Your task to perform on an android device: Clear the cart on amazon. Image 0: 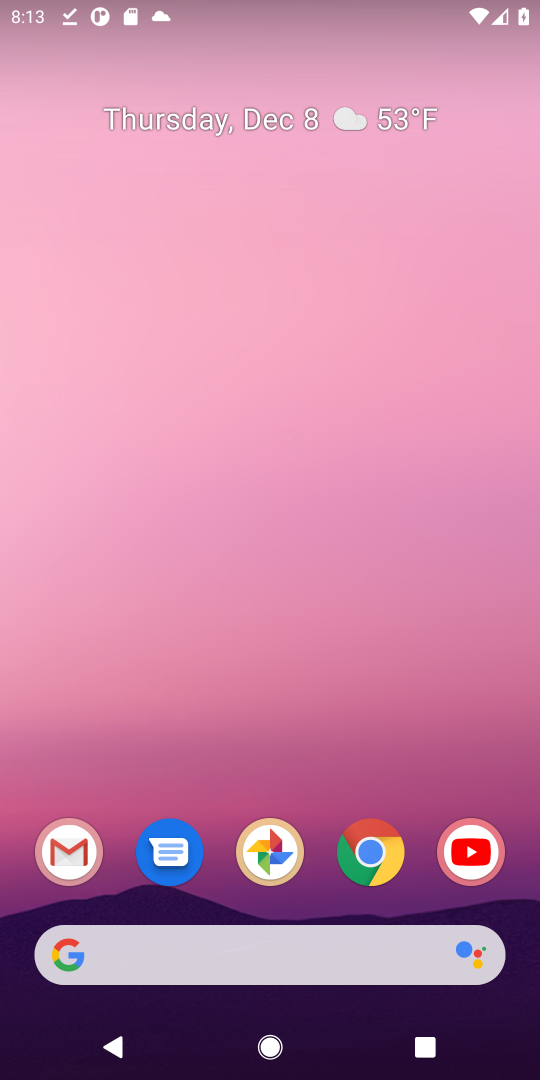
Step 0: click (213, 957)
Your task to perform on an android device: Clear the cart on amazon. Image 1: 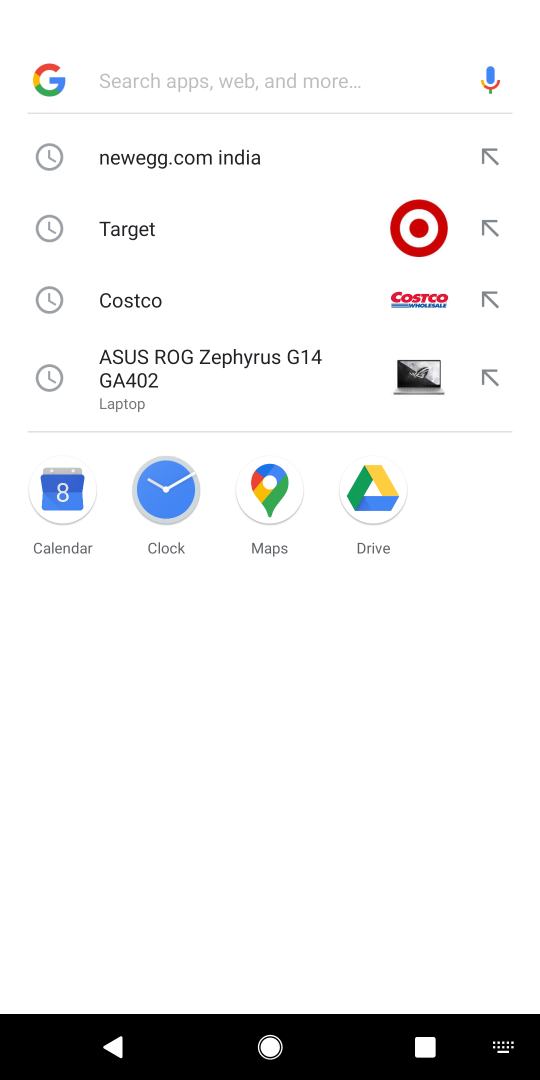
Step 1: type "amazon "
Your task to perform on an android device: Clear the cart on amazon. Image 2: 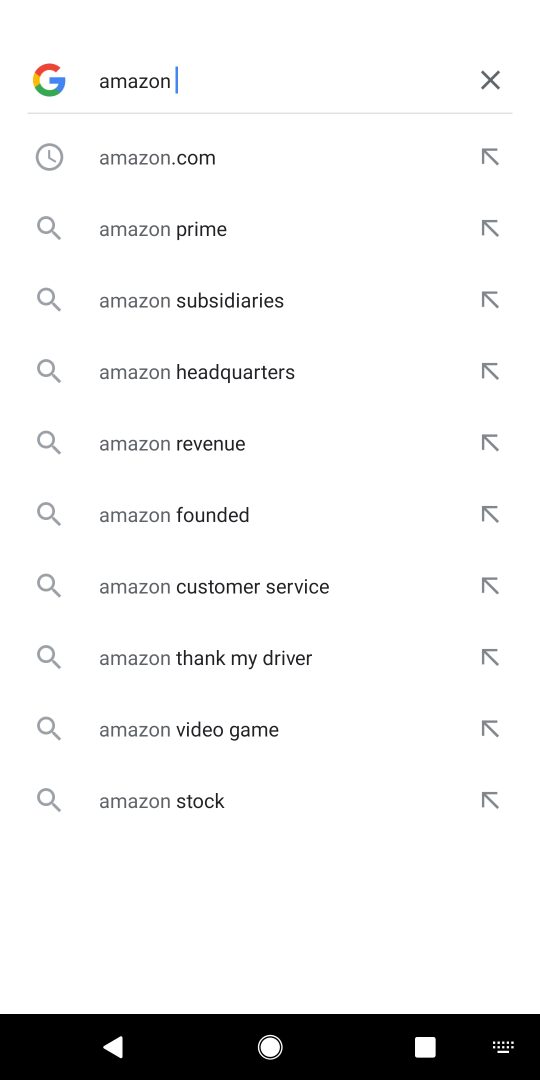
Step 2: click (146, 172)
Your task to perform on an android device: Clear the cart on amazon. Image 3: 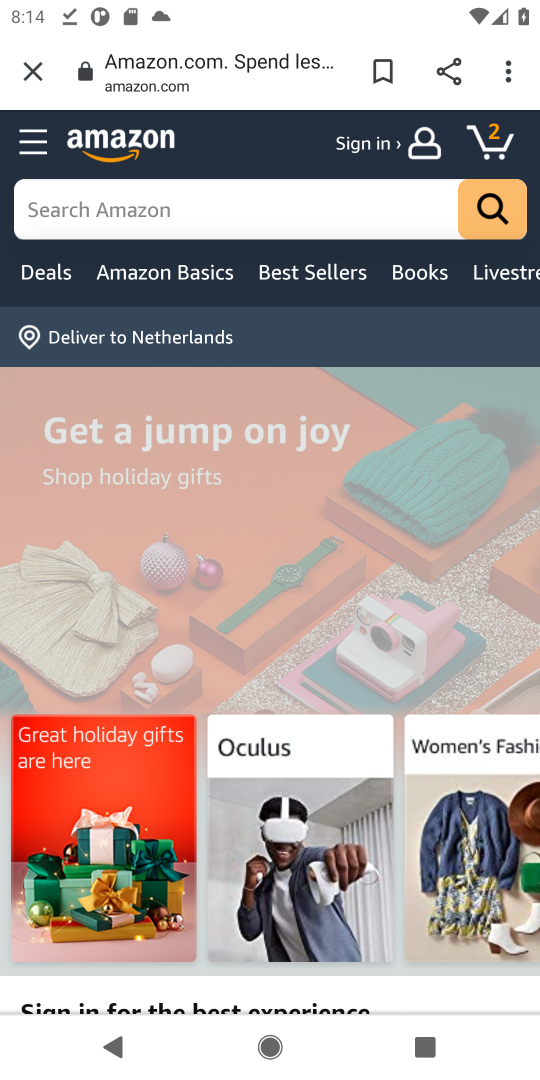
Step 3: click (479, 124)
Your task to perform on an android device: Clear the cart on amazon. Image 4: 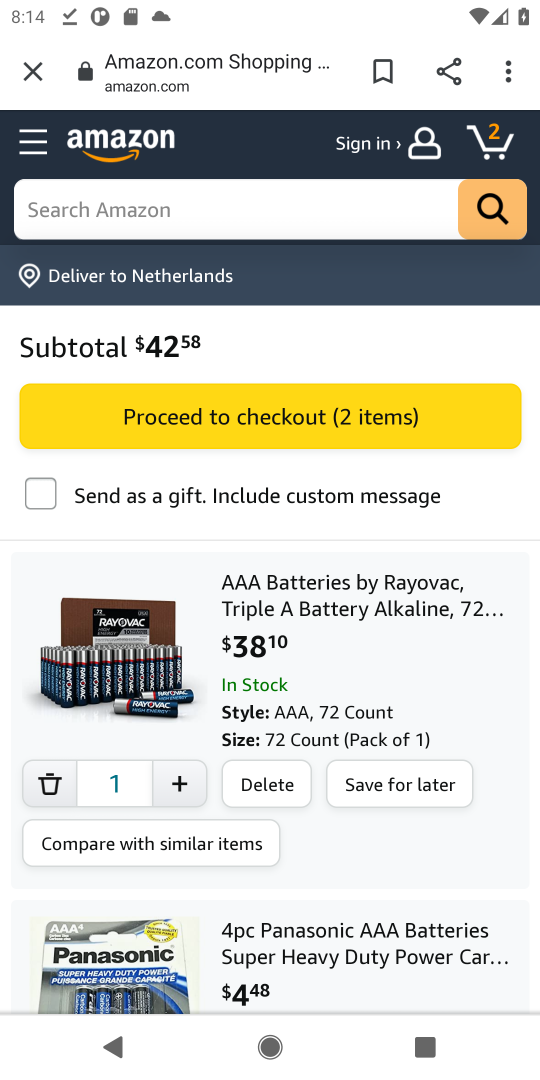
Step 4: click (261, 797)
Your task to perform on an android device: Clear the cart on amazon. Image 5: 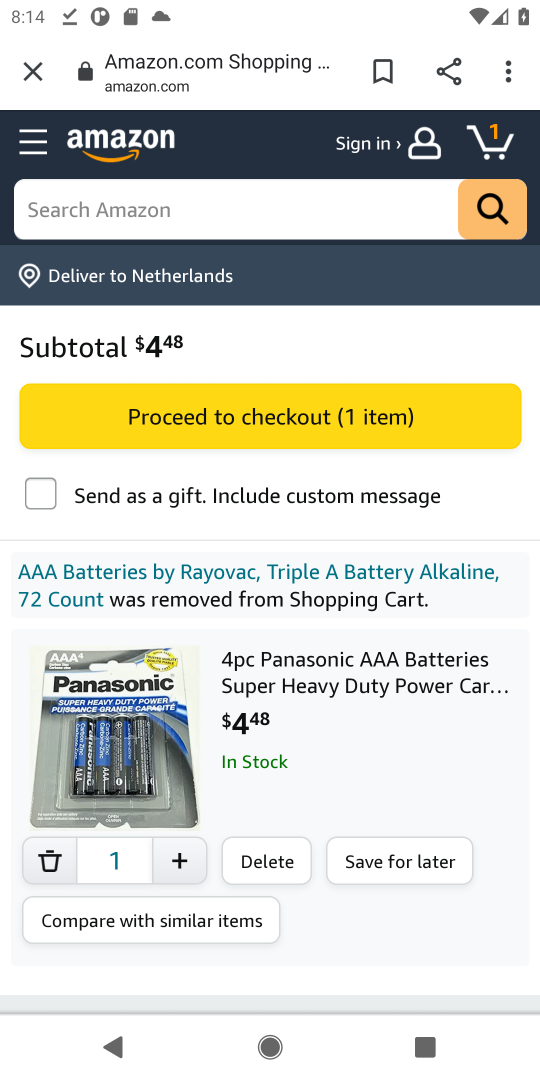
Step 5: click (269, 873)
Your task to perform on an android device: Clear the cart on amazon. Image 6: 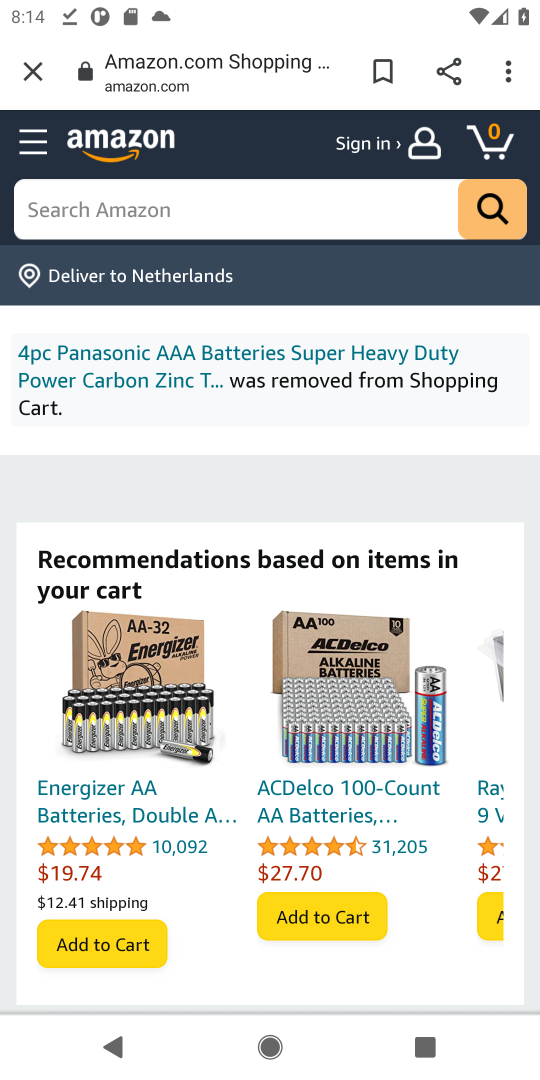
Step 6: click (86, 948)
Your task to perform on an android device: Clear the cart on amazon. Image 7: 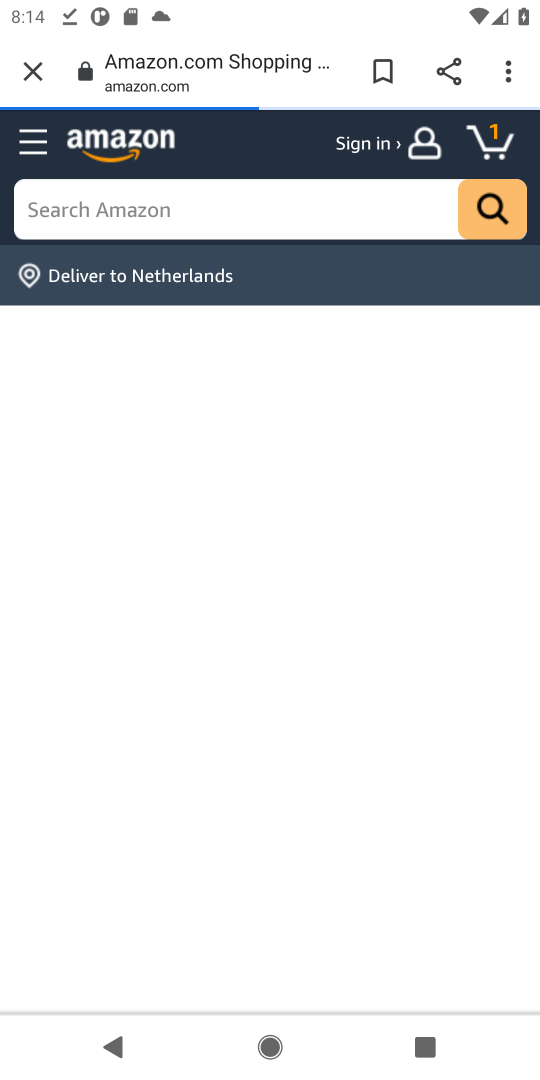
Step 7: task complete